Your task to perform on an android device: turn off javascript in the chrome app Image 0: 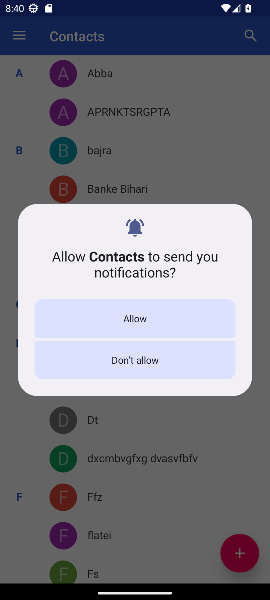
Step 0: press home button
Your task to perform on an android device: turn off javascript in the chrome app Image 1: 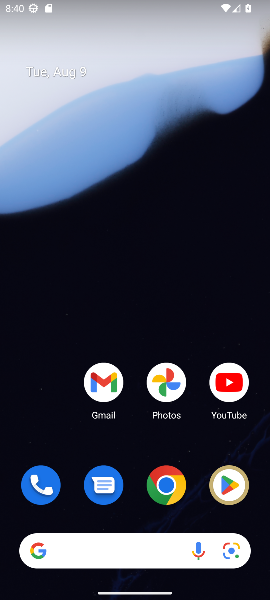
Step 1: click (177, 479)
Your task to perform on an android device: turn off javascript in the chrome app Image 2: 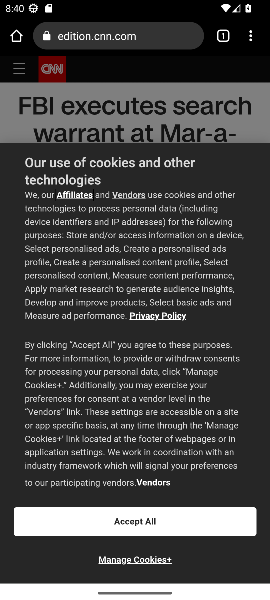
Step 2: click (249, 38)
Your task to perform on an android device: turn off javascript in the chrome app Image 3: 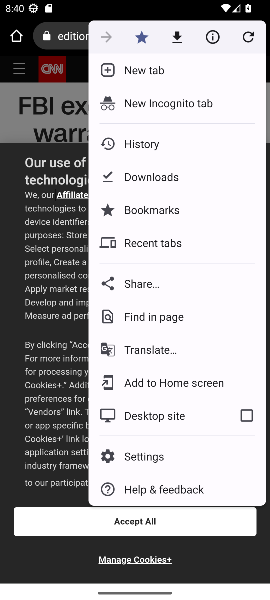
Step 3: click (126, 451)
Your task to perform on an android device: turn off javascript in the chrome app Image 4: 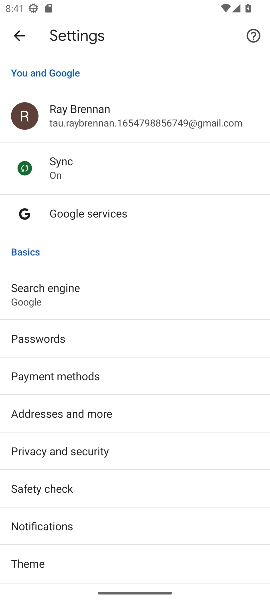
Step 4: drag from (124, 503) to (74, 276)
Your task to perform on an android device: turn off javascript in the chrome app Image 5: 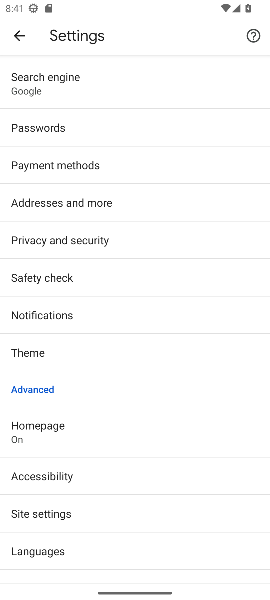
Step 5: click (101, 510)
Your task to perform on an android device: turn off javascript in the chrome app Image 6: 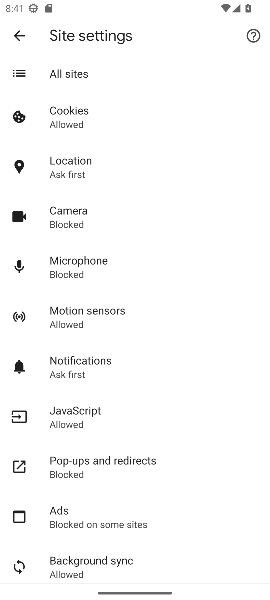
Step 6: click (59, 416)
Your task to perform on an android device: turn off javascript in the chrome app Image 7: 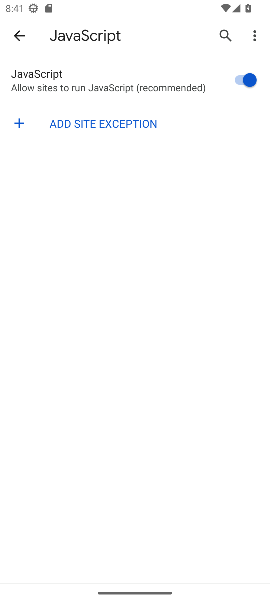
Step 7: click (250, 81)
Your task to perform on an android device: turn off javascript in the chrome app Image 8: 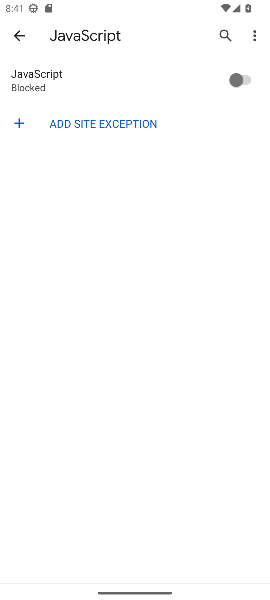
Step 8: task complete